Your task to perform on an android device: Check the news Image 0: 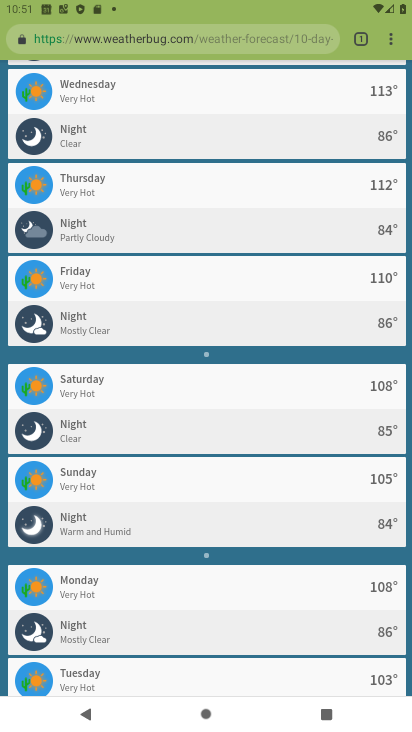
Step 0: press home button
Your task to perform on an android device: Check the news Image 1: 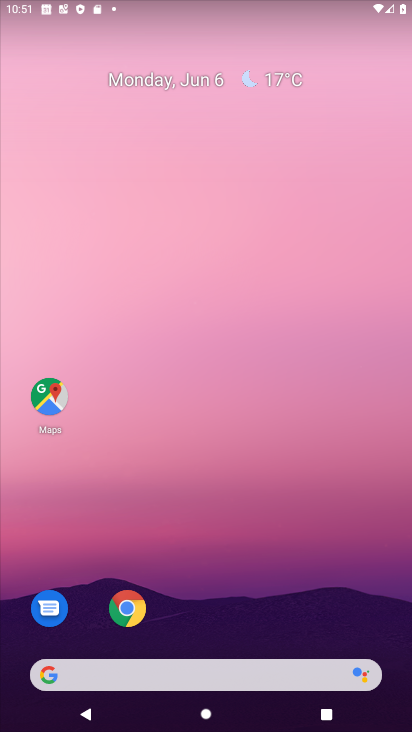
Step 1: click (289, 679)
Your task to perform on an android device: Check the news Image 2: 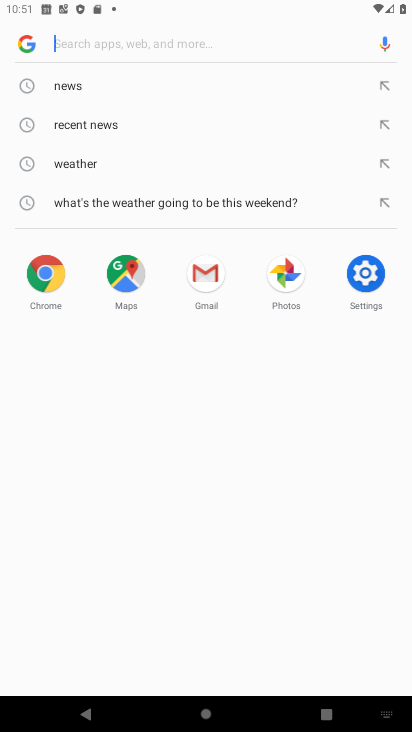
Step 2: click (49, 88)
Your task to perform on an android device: Check the news Image 3: 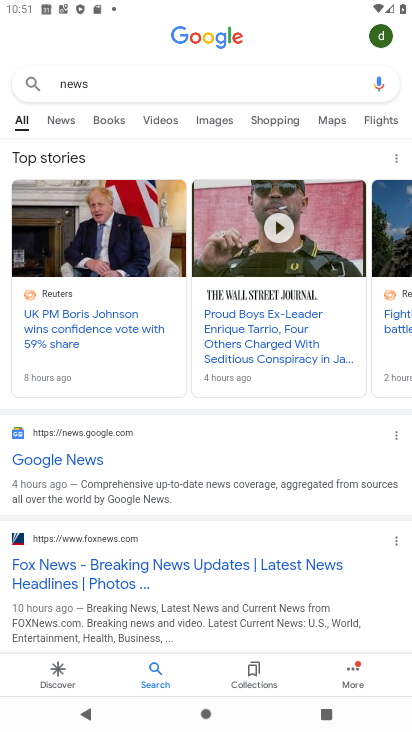
Step 3: task complete